Your task to perform on an android device: Toggle the flashlight Image 0: 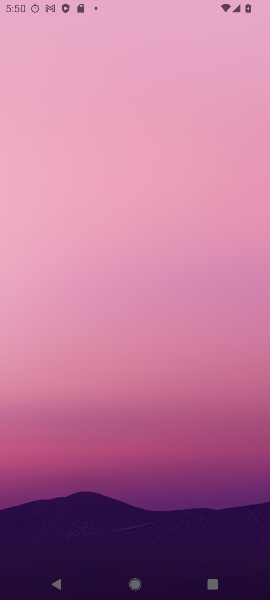
Step 0: press home button
Your task to perform on an android device: Toggle the flashlight Image 1: 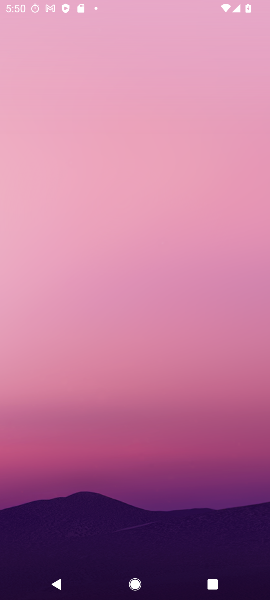
Step 1: task complete